Your task to perform on an android device: When is my next appointment? Image 0: 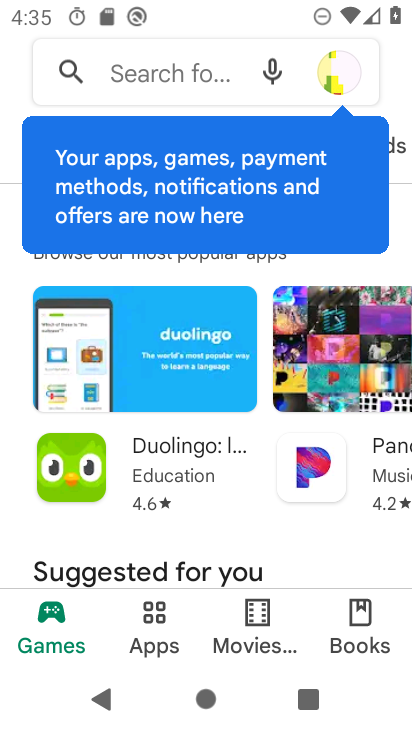
Step 0: press back button
Your task to perform on an android device: When is my next appointment? Image 1: 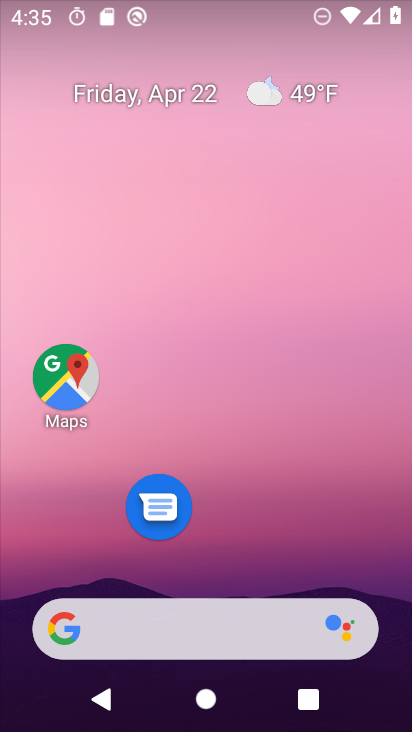
Step 1: drag from (211, 521) to (326, 97)
Your task to perform on an android device: When is my next appointment? Image 2: 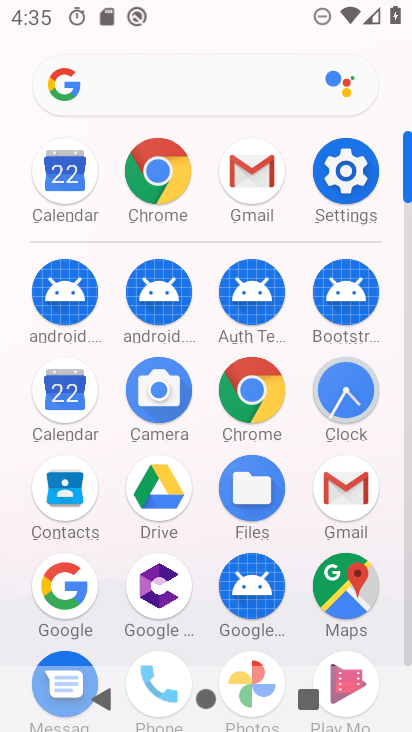
Step 2: click (62, 388)
Your task to perform on an android device: When is my next appointment? Image 3: 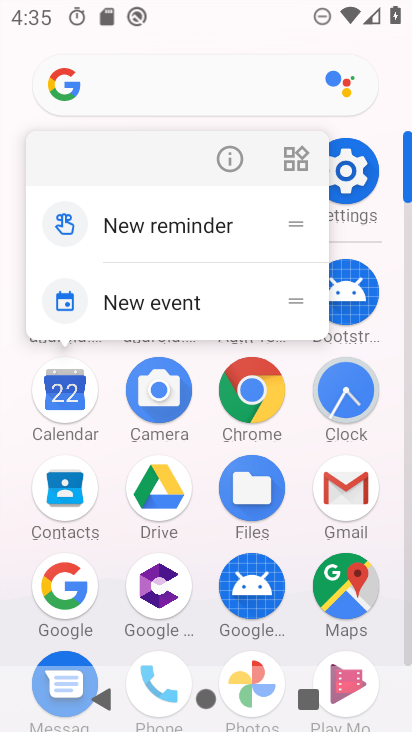
Step 3: click (62, 388)
Your task to perform on an android device: When is my next appointment? Image 4: 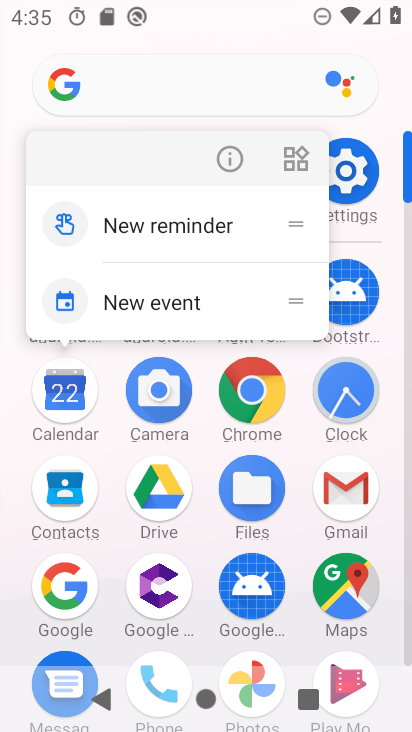
Step 4: click (67, 389)
Your task to perform on an android device: When is my next appointment? Image 5: 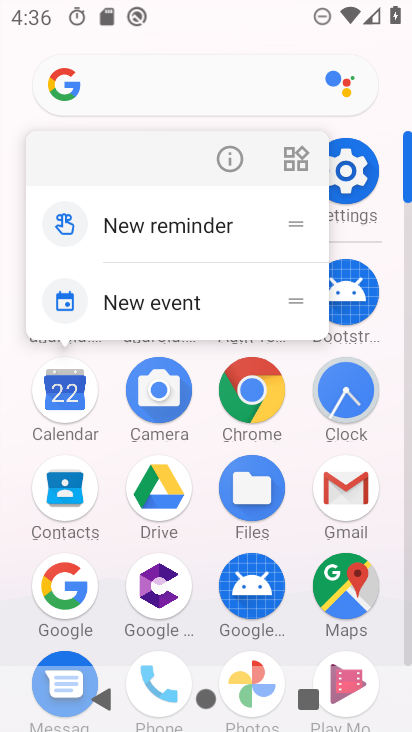
Step 5: click (70, 405)
Your task to perform on an android device: When is my next appointment? Image 6: 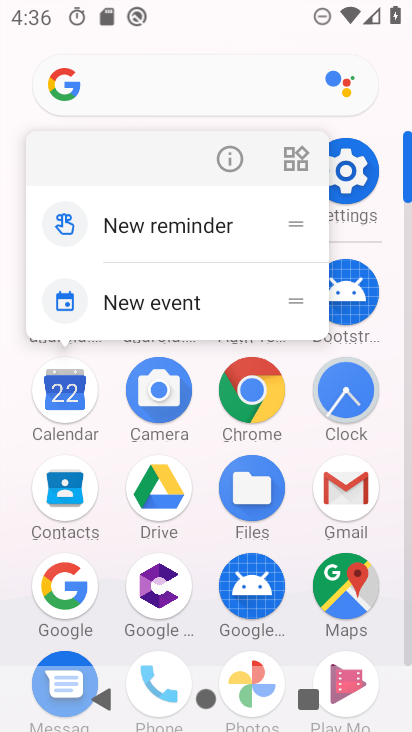
Step 6: click (68, 396)
Your task to perform on an android device: When is my next appointment? Image 7: 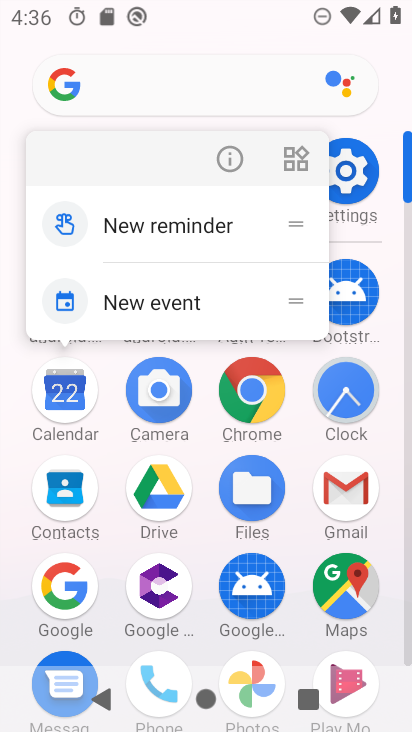
Step 7: click (63, 392)
Your task to perform on an android device: When is my next appointment? Image 8: 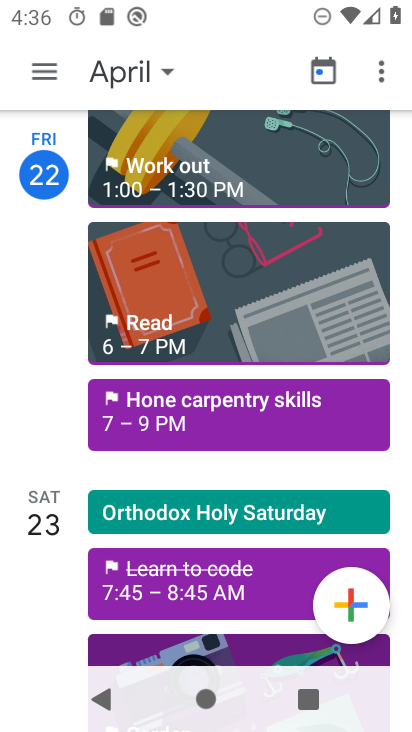
Step 8: task complete